Your task to perform on an android device: See recent photos Image 0: 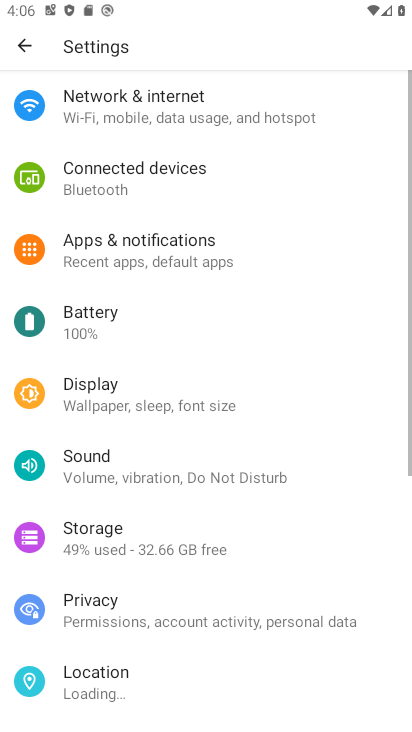
Step 0: press home button
Your task to perform on an android device: See recent photos Image 1: 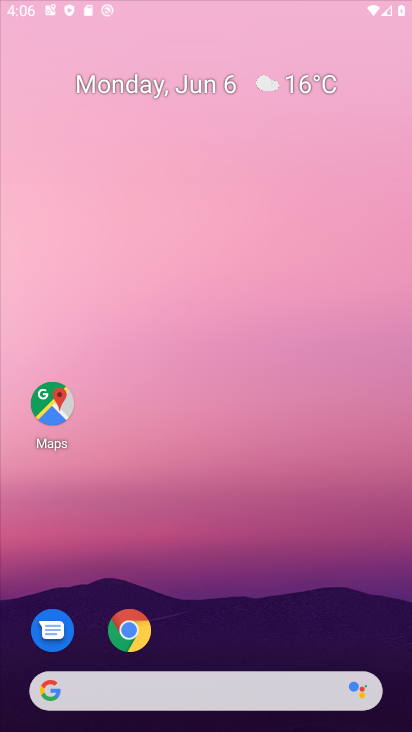
Step 1: drag from (325, 102) to (329, 22)
Your task to perform on an android device: See recent photos Image 2: 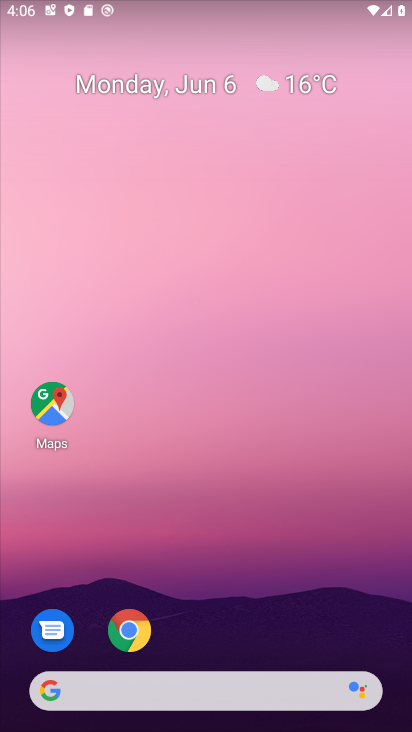
Step 2: drag from (332, 620) to (229, 17)
Your task to perform on an android device: See recent photos Image 3: 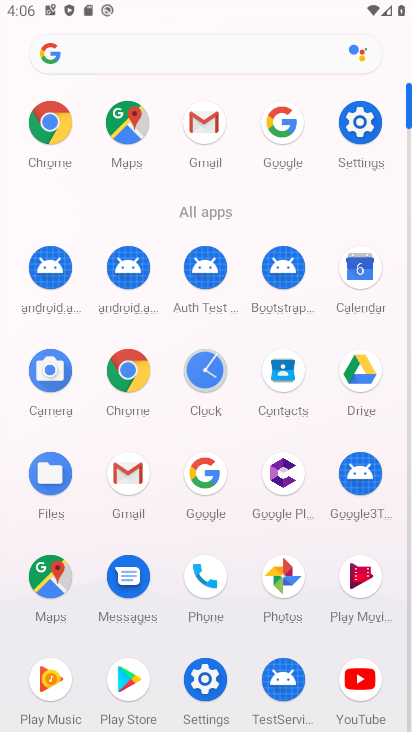
Step 3: click (302, 577)
Your task to perform on an android device: See recent photos Image 4: 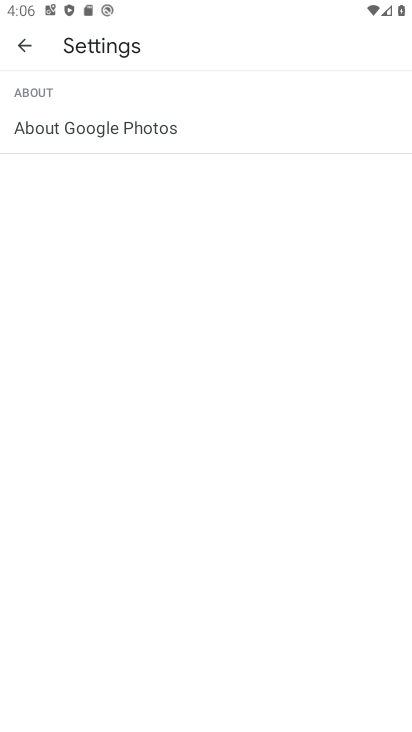
Step 4: click (20, 40)
Your task to perform on an android device: See recent photos Image 5: 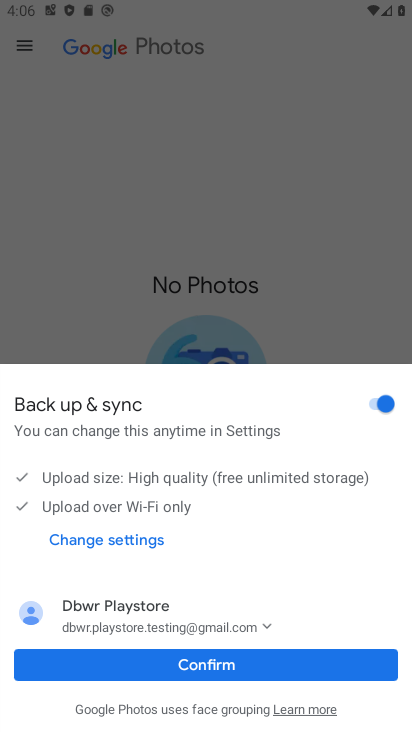
Step 5: click (219, 665)
Your task to perform on an android device: See recent photos Image 6: 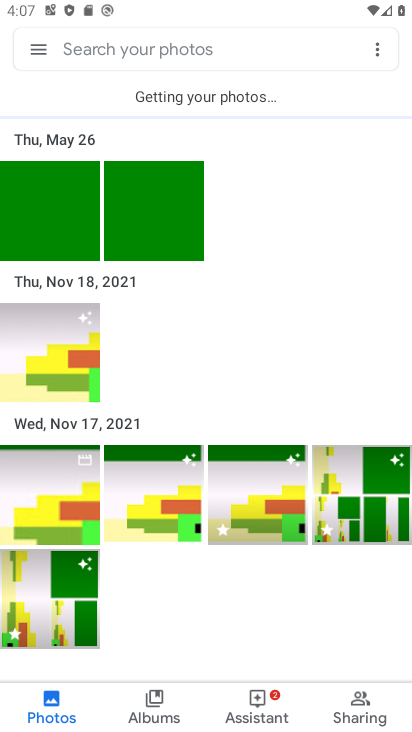
Step 6: task complete